Your task to perform on an android device: change the clock style Image 0: 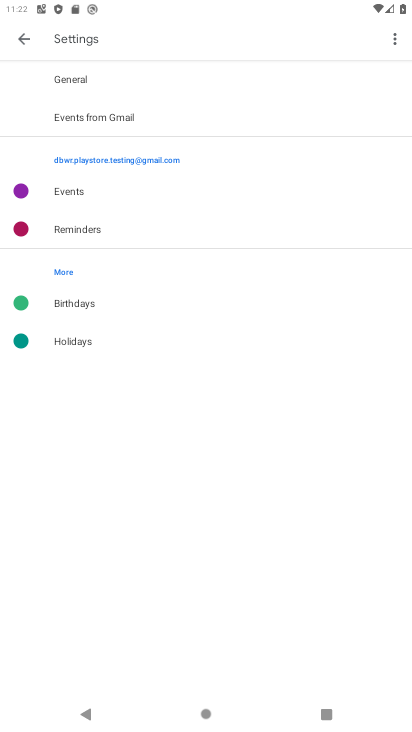
Step 0: press home button
Your task to perform on an android device: change the clock style Image 1: 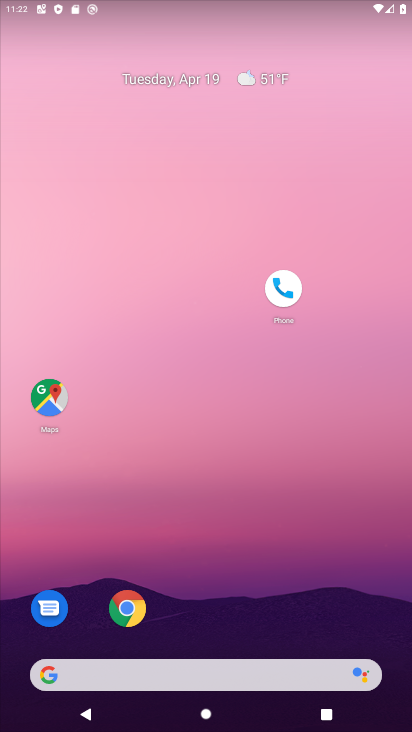
Step 1: drag from (208, 463) to (192, 141)
Your task to perform on an android device: change the clock style Image 2: 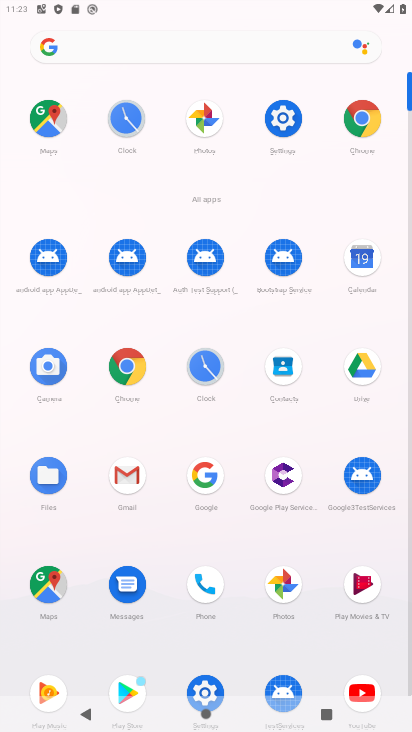
Step 2: drag from (172, 671) to (178, 216)
Your task to perform on an android device: change the clock style Image 3: 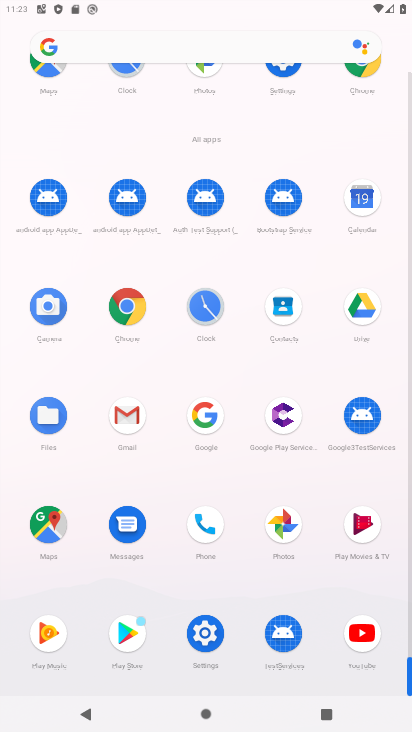
Step 3: drag from (238, 656) to (226, 354)
Your task to perform on an android device: change the clock style Image 4: 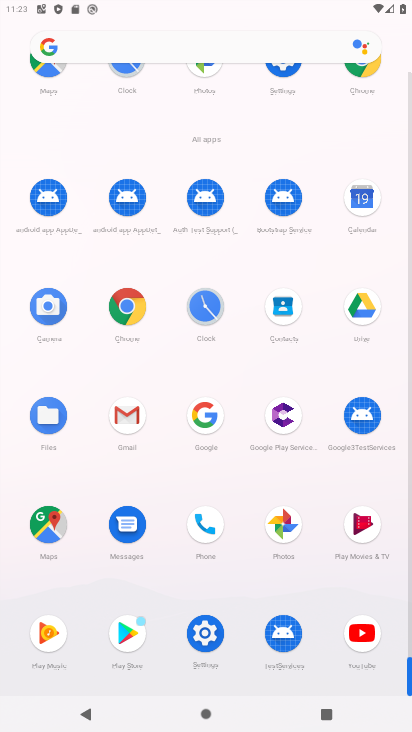
Step 4: drag from (227, 198) to (227, 235)
Your task to perform on an android device: change the clock style Image 5: 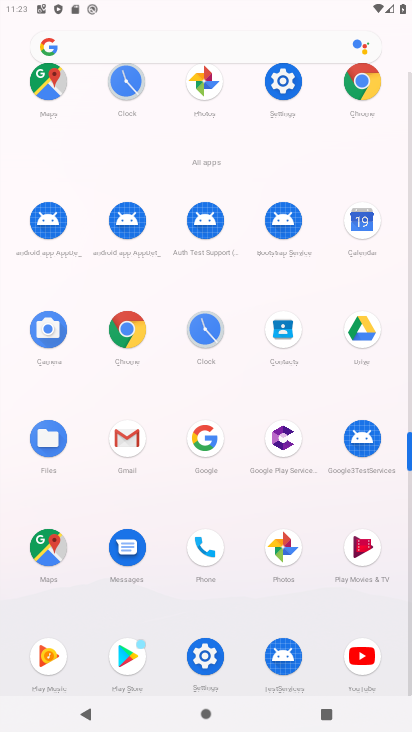
Step 5: click (124, 95)
Your task to perform on an android device: change the clock style Image 6: 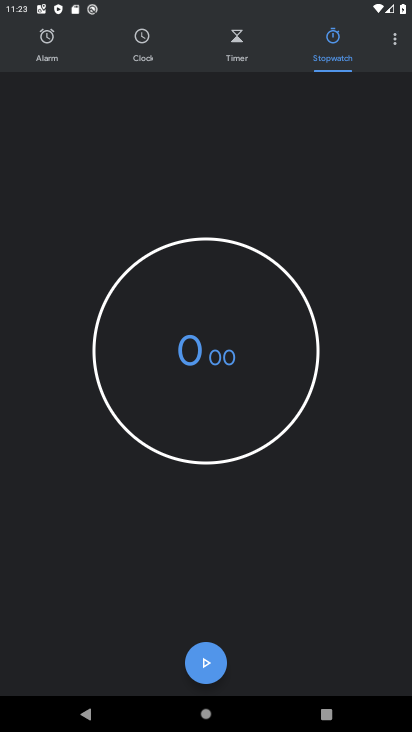
Step 6: click (394, 44)
Your task to perform on an android device: change the clock style Image 7: 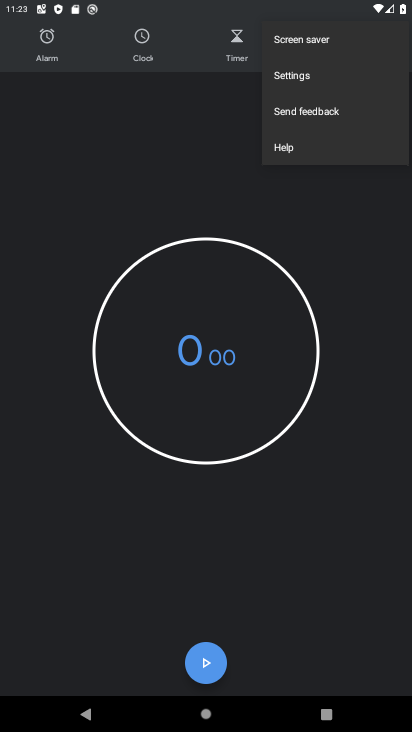
Step 7: click (293, 82)
Your task to perform on an android device: change the clock style Image 8: 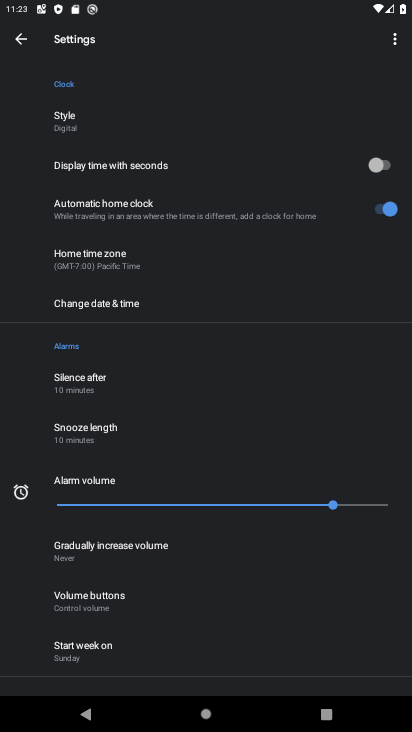
Step 8: click (75, 127)
Your task to perform on an android device: change the clock style Image 9: 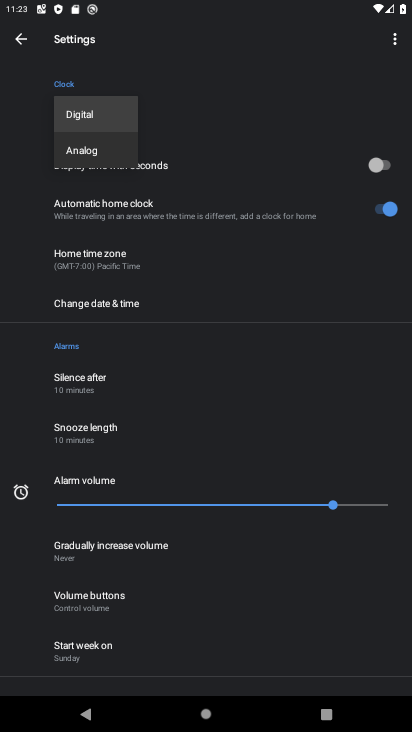
Step 9: click (91, 148)
Your task to perform on an android device: change the clock style Image 10: 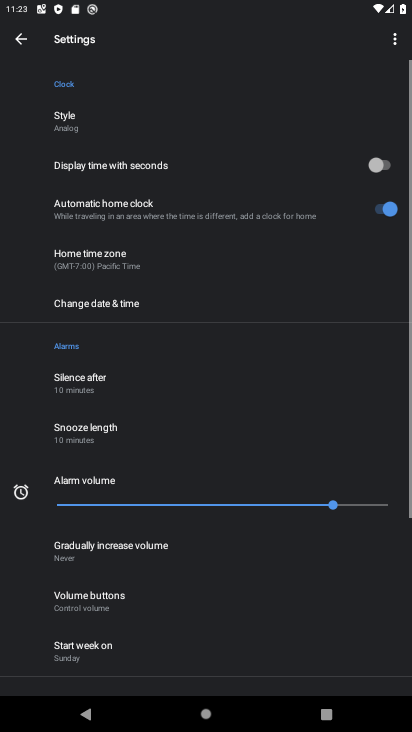
Step 10: task complete